Your task to perform on an android device: Open Google Image 0: 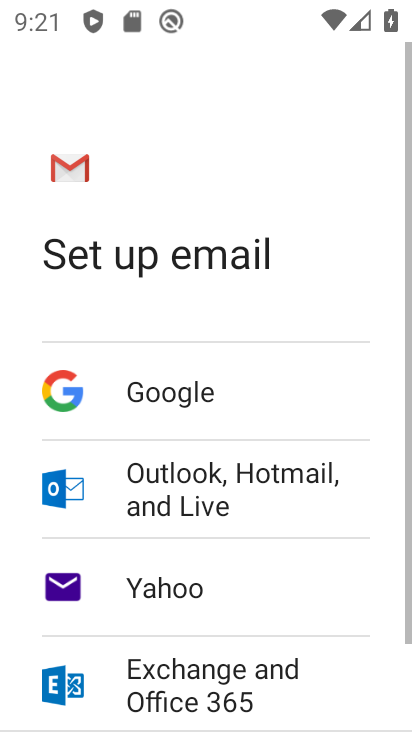
Step 0: press home button
Your task to perform on an android device: Open Google Image 1: 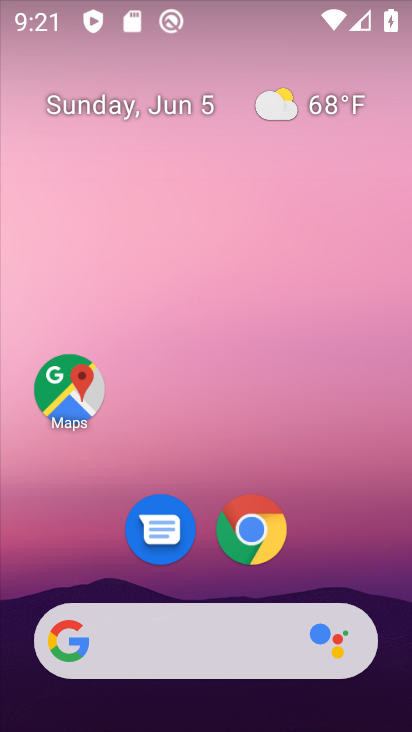
Step 1: drag from (230, 700) to (282, 21)
Your task to perform on an android device: Open Google Image 2: 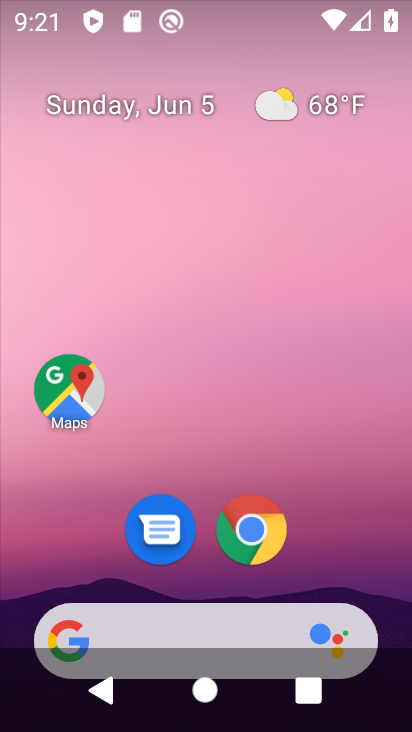
Step 2: drag from (249, 685) to (355, 46)
Your task to perform on an android device: Open Google Image 3: 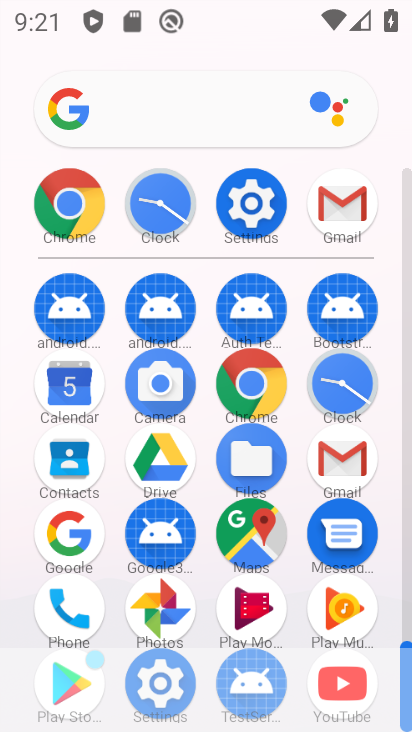
Step 3: click (83, 538)
Your task to perform on an android device: Open Google Image 4: 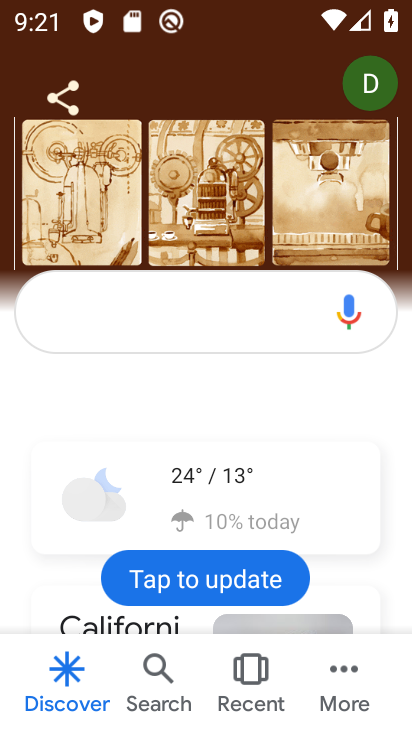
Step 4: task complete